Your task to perform on an android device: turn vacation reply on in the gmail app Image 0: 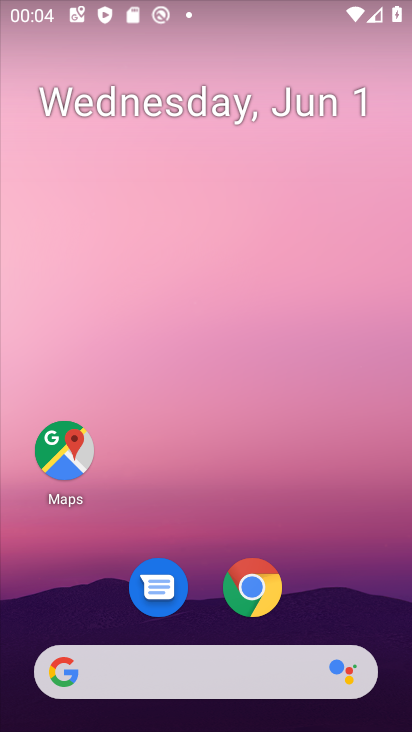
Step 0: drag from (351, 627) to (330, 75)
Your task to perform on an android device: turn vacation reply on in the gmail app Image 1: 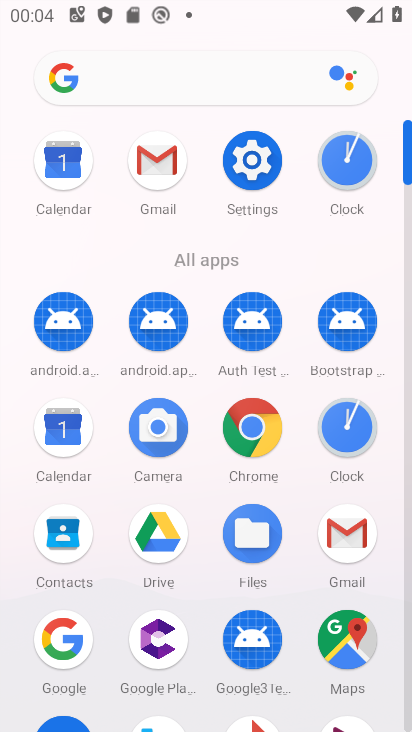
Step 1: click (163, 172)
Your task to perform on an android device: turn vacation reply on in the gmail app Image 2: 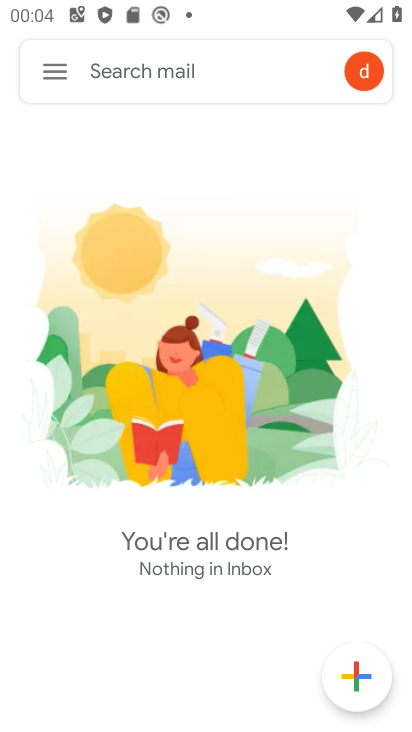
Step 2: click (61, 59)
Your task to perform on an android device: turn vacation reply on in the gmail app Image 3: 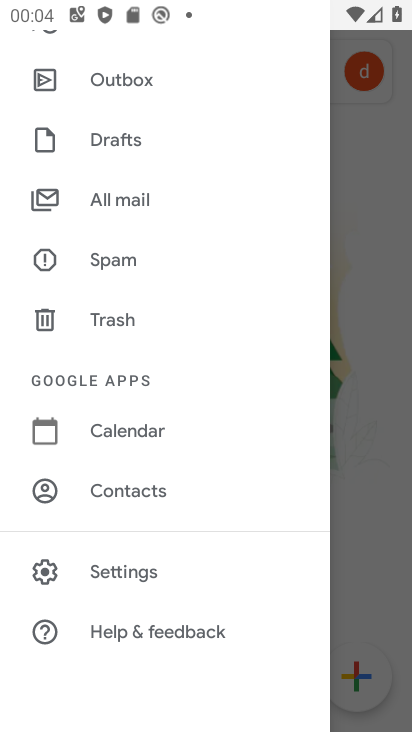
Step 3: click (113, 567)
Your task to perform on an android device: turn vacation reply on in the gmail app Image 4: 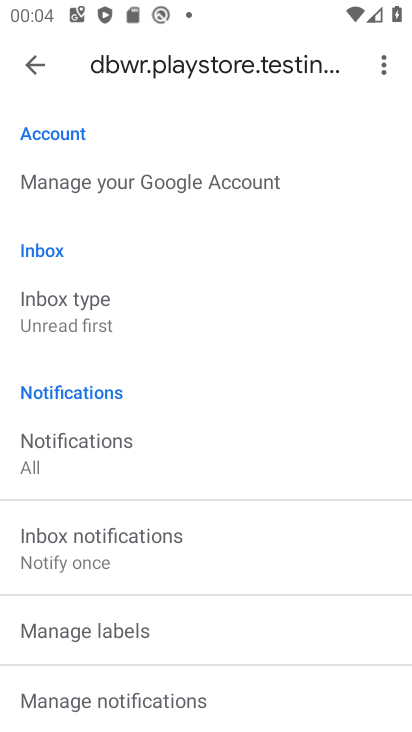
Step 4: drag from (199, 659) to (234, 108)
Your task to perform on an android device: turn vacation reply on in the gmail app Image 5: 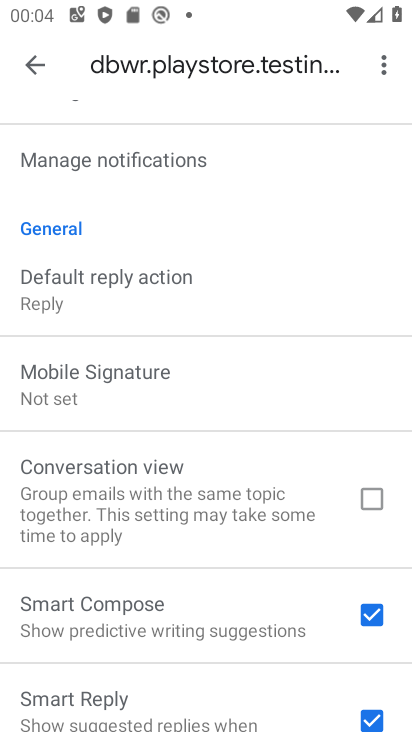
Step 5: drag from (202, 583) to (313, 90)
Your task to perform on an android device: turn vacation reply on in the gmail app Image 6: 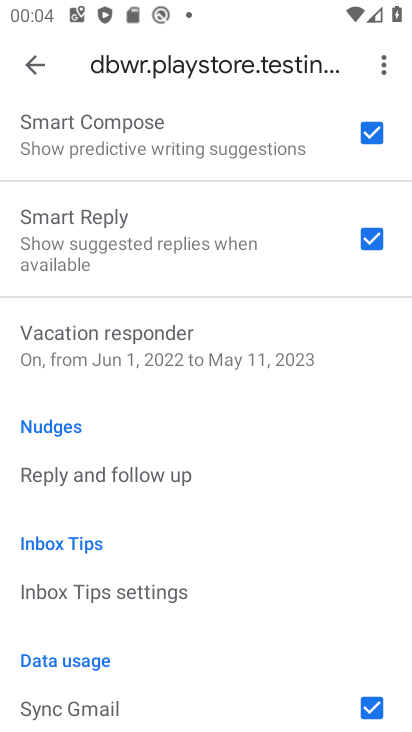
Step 6: click (237, 356)
Your task to perform on an android device: turn vacation reply on in the gmail app Image 7: 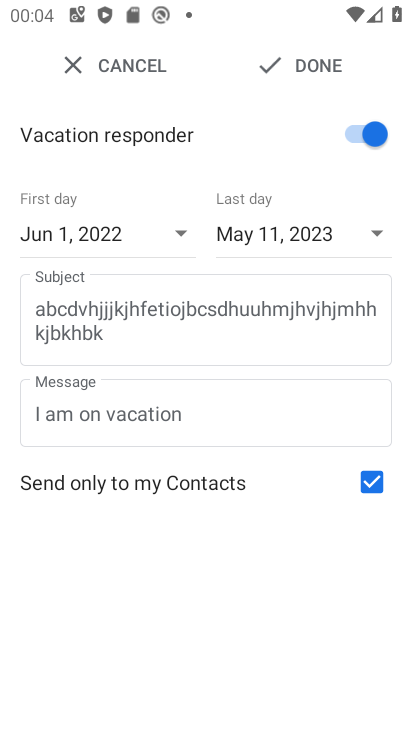
Step 7: click (303, 71)
Your task to perform on an android device: turn vacation reply on in the gmail app Image 8: 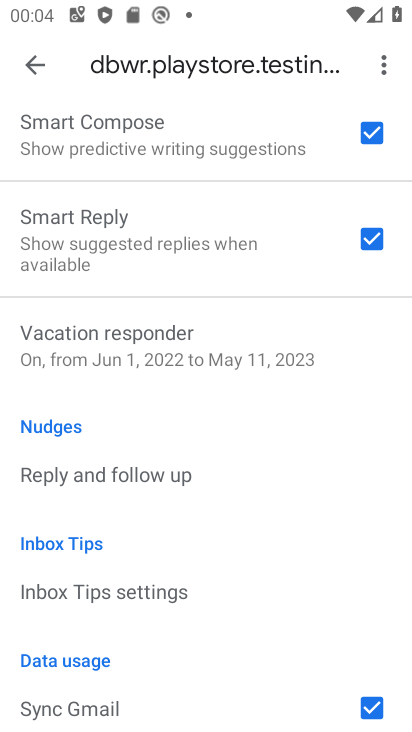
Step 8: task complete